Your task to perform on an android device: turn on wifi Image 0: 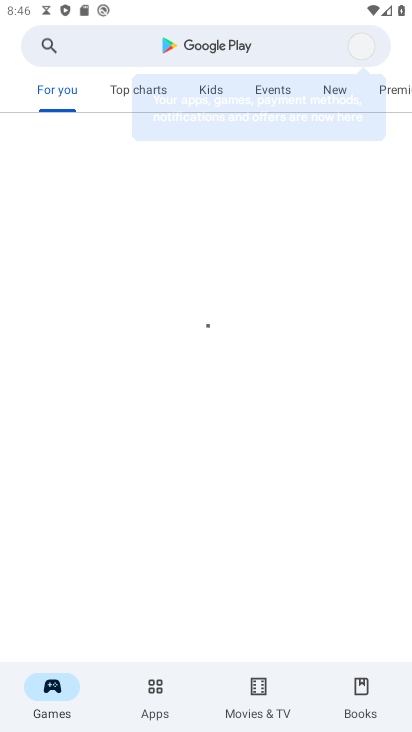
Step 0: drag from (215, 632) to (240, 483)
Your task to perform on an android device: turn on wifi Image 1: 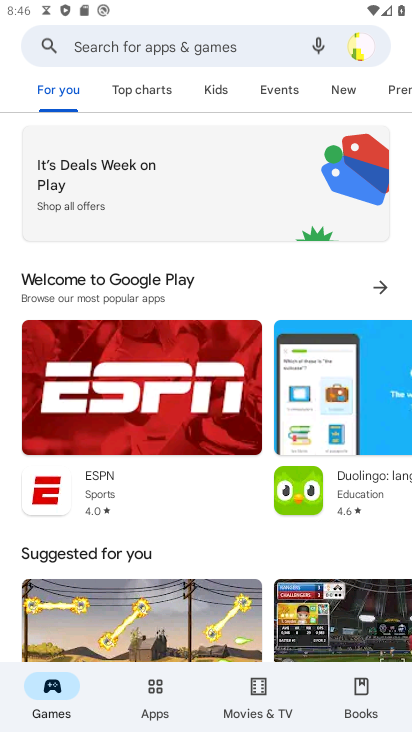
Step 1: press home button
Your task to perform on an android device: turn on wifi Image 2: 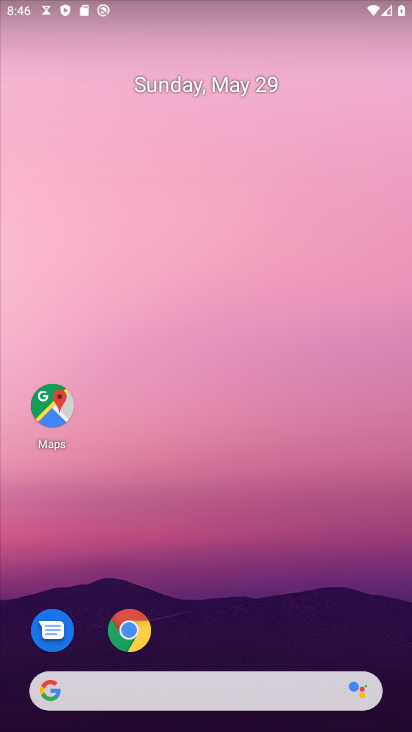
Step 2: drag from (233, 631) to (328, 223)
Your task to perform on an android device: turn on wifi Image 3: 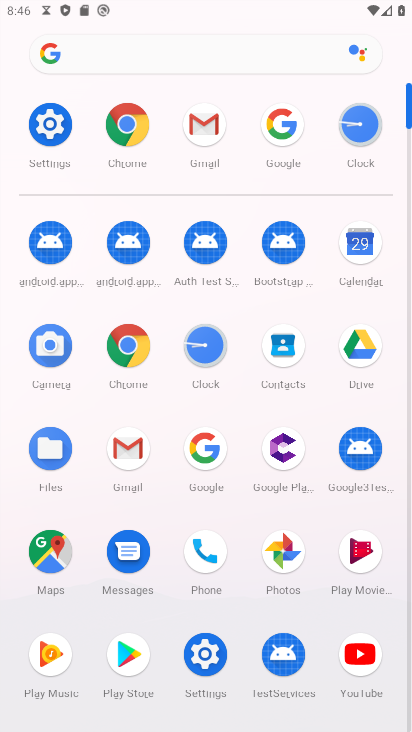
Step 3: click (216, 657)
Your task to perform on an android device: turn on wifi Image 4: 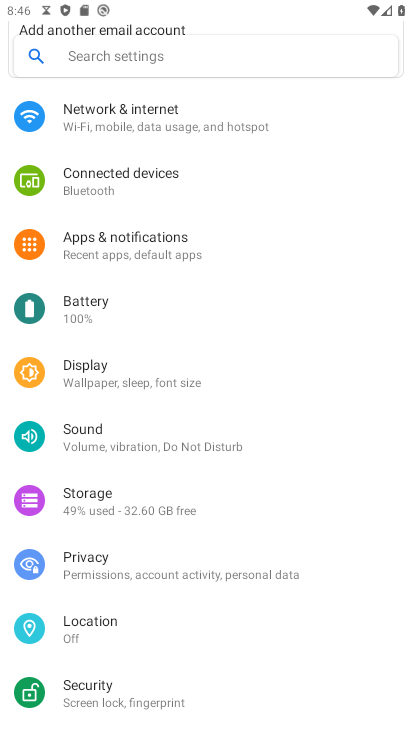
Step 4: click (165, 107)
Your task to perform on an android device: turn on wifi Image 5: 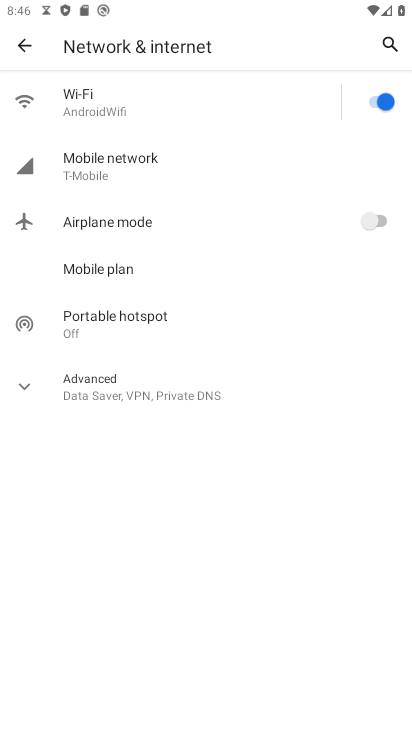
Step 5: task complete